Your task to perform on an android device: Go to wifi settings Image 0: 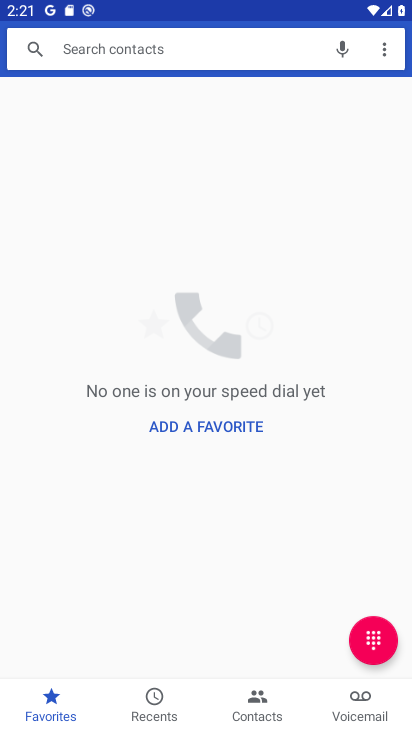
Step 0: press home button
Your task to perform on an android device: Go to wifi settings Image 1: 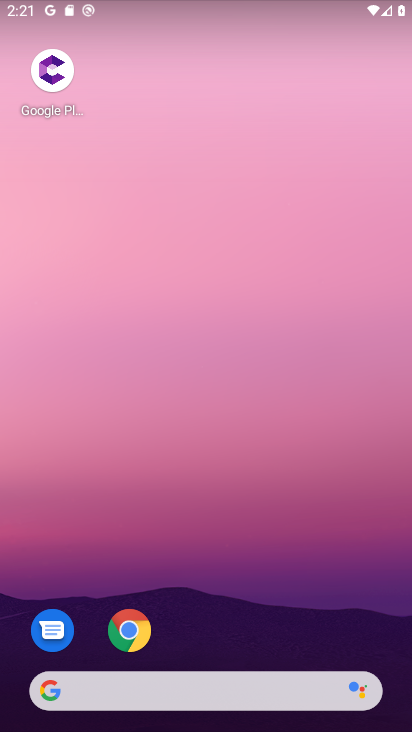
Step 1: drag from (137, 691) to (115, 199)
Your task to perform on an android device: Go to wifi settings Image 2: 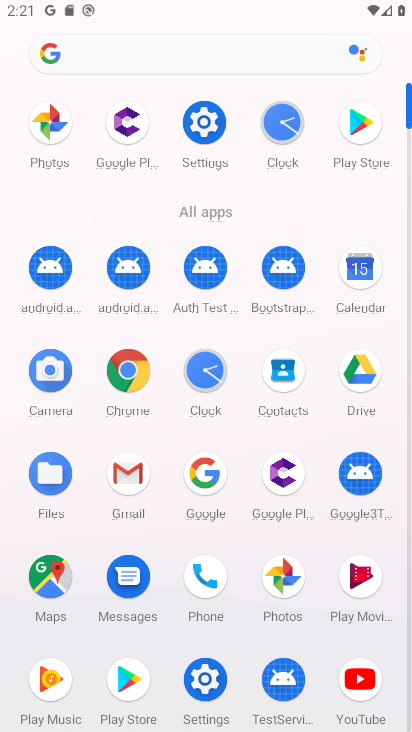
Step 2: click (208, 115)
Your task to perform on an android device: Go to wifi settings Image 3: 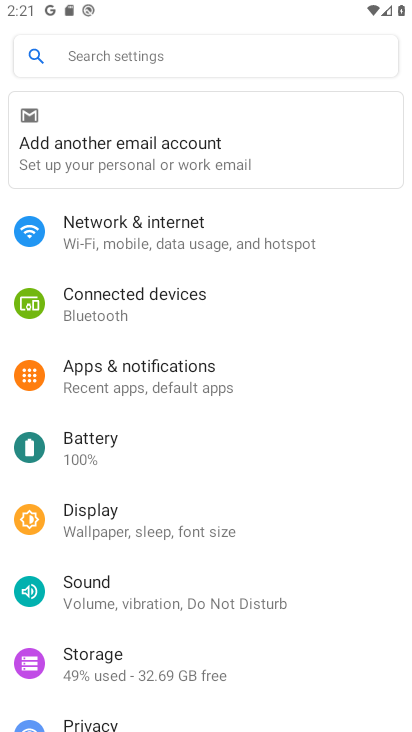
Step 3: click (117, 252)
Your task to perform on an android device: Go to wifi settings Image 4: 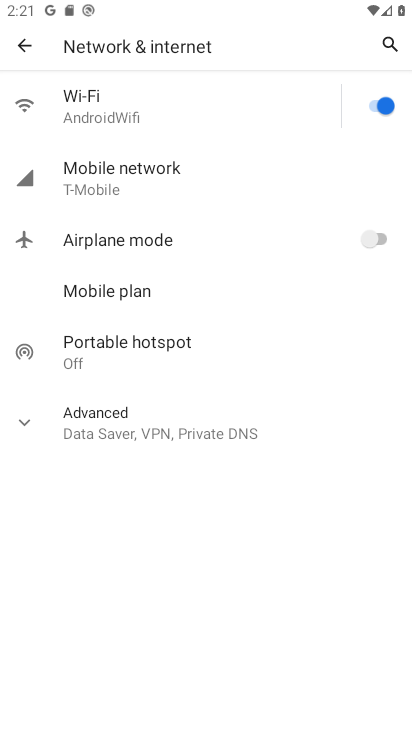
Step 4: click (131, 122)
Your task to perform on an android device: Go to wifi settings Image 5: 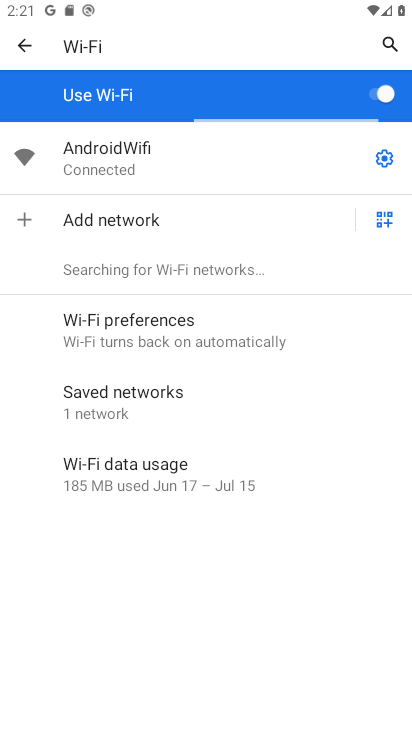
Step 5: task complete